Your task to perform on an android device: turn on location history Image 0: 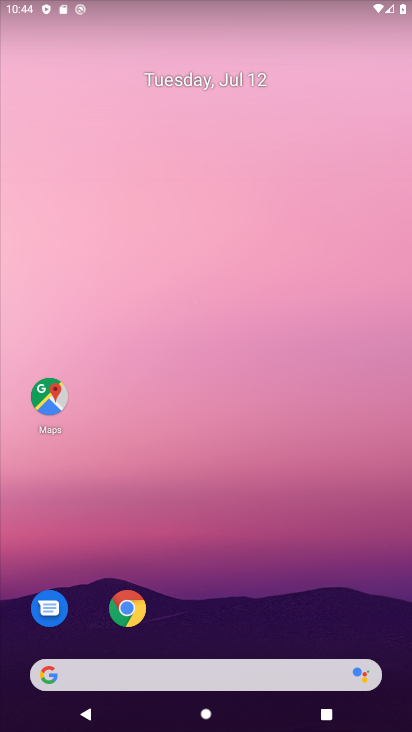
Step 0: drag from (287, 12) to (317, 636)
Your task to perform on an android device: turn on location history Image 1: 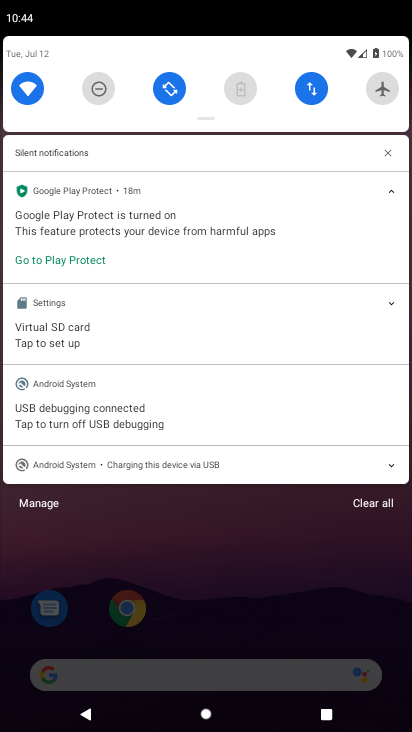
Step 1: drag from (251, 63) to (243, 591)
Your task to perform on an android device: turn on location history Image 2: 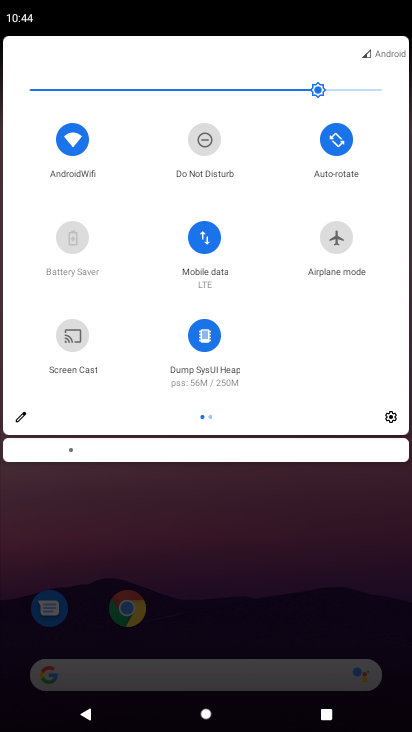
Step 2: click (390, 418)
Your task to perform on an android device: turn on location history Image 3: 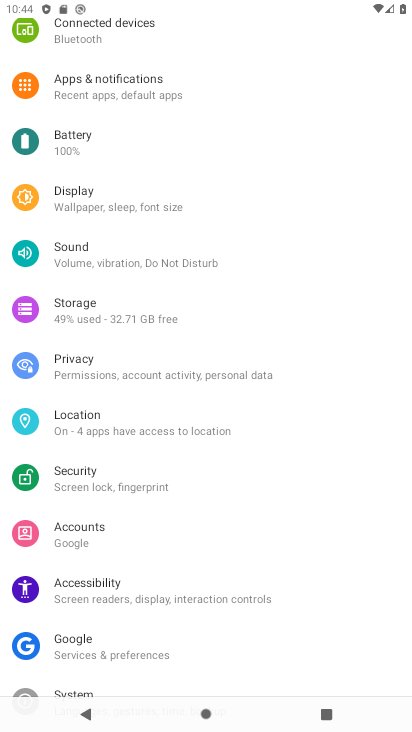
Step 3: click (232, 423)
Your task to perform on an android device: turn on location history Image 4: 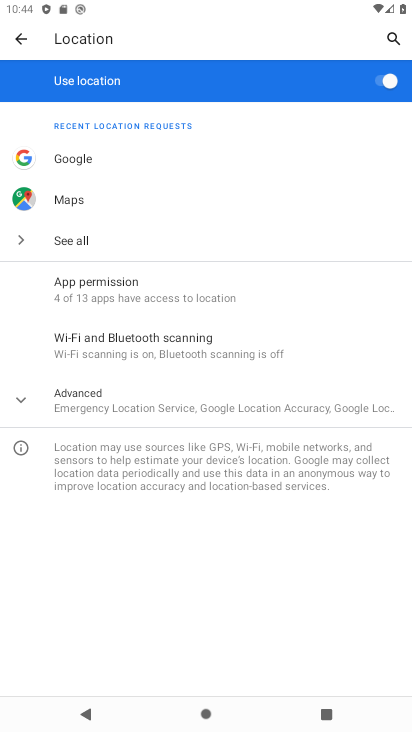
Step 4: click (173, 399)
Your task to perform on an android device: turn on location history Image 5: 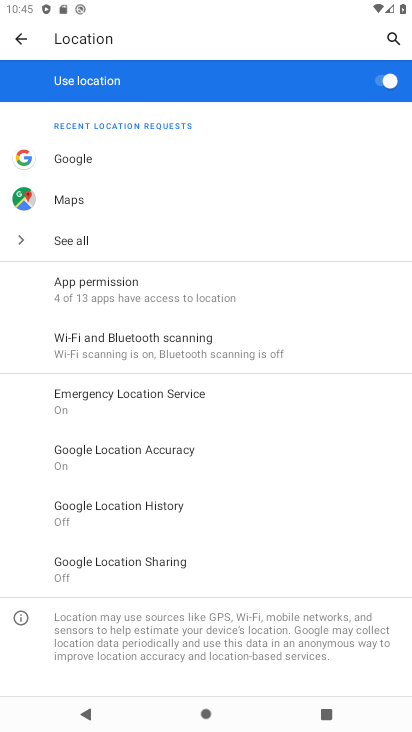
Step 5: click (168, 493)
Your task to perform on an android device: turn on location history Image 6: 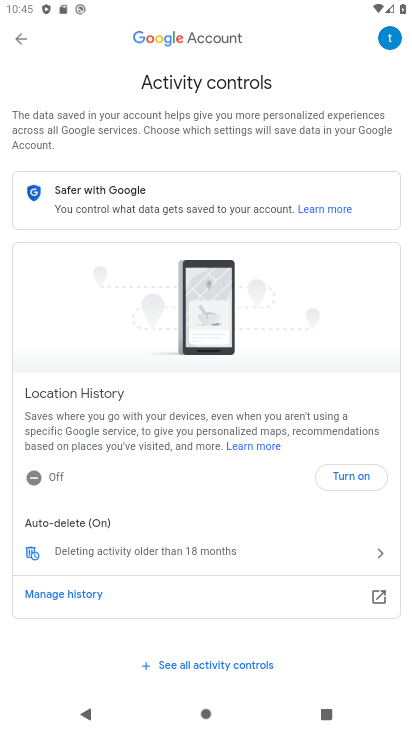
Step 6: click (369, 471)
Your task to perform on an android device: turn on location history Image 7: 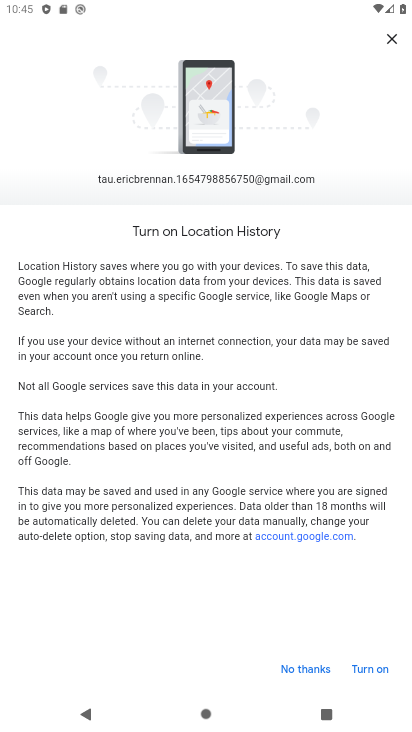
Step 7: click (386, 669)
Your task to perform on an android device: turn on location history Image 8: 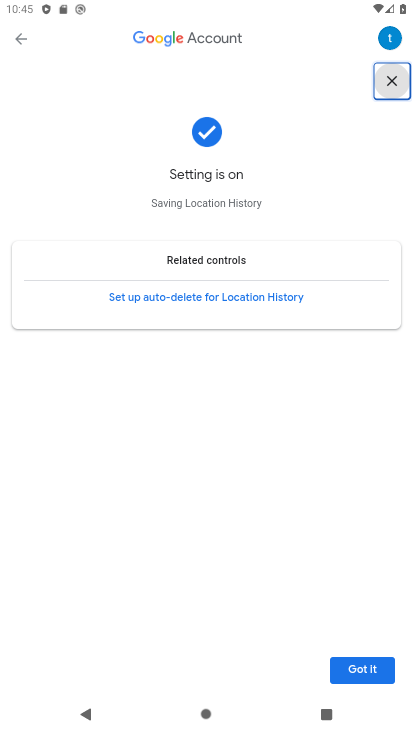
Step 8: click (346, 661)
Your task to perform on an android device: turn on location history Image 9: 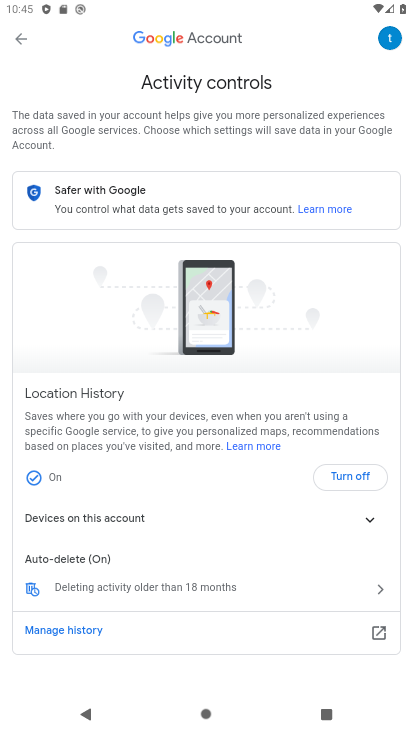
Step 9: task complete